Your task to perform on an android device: uninstall "Google Translate" Image 0: 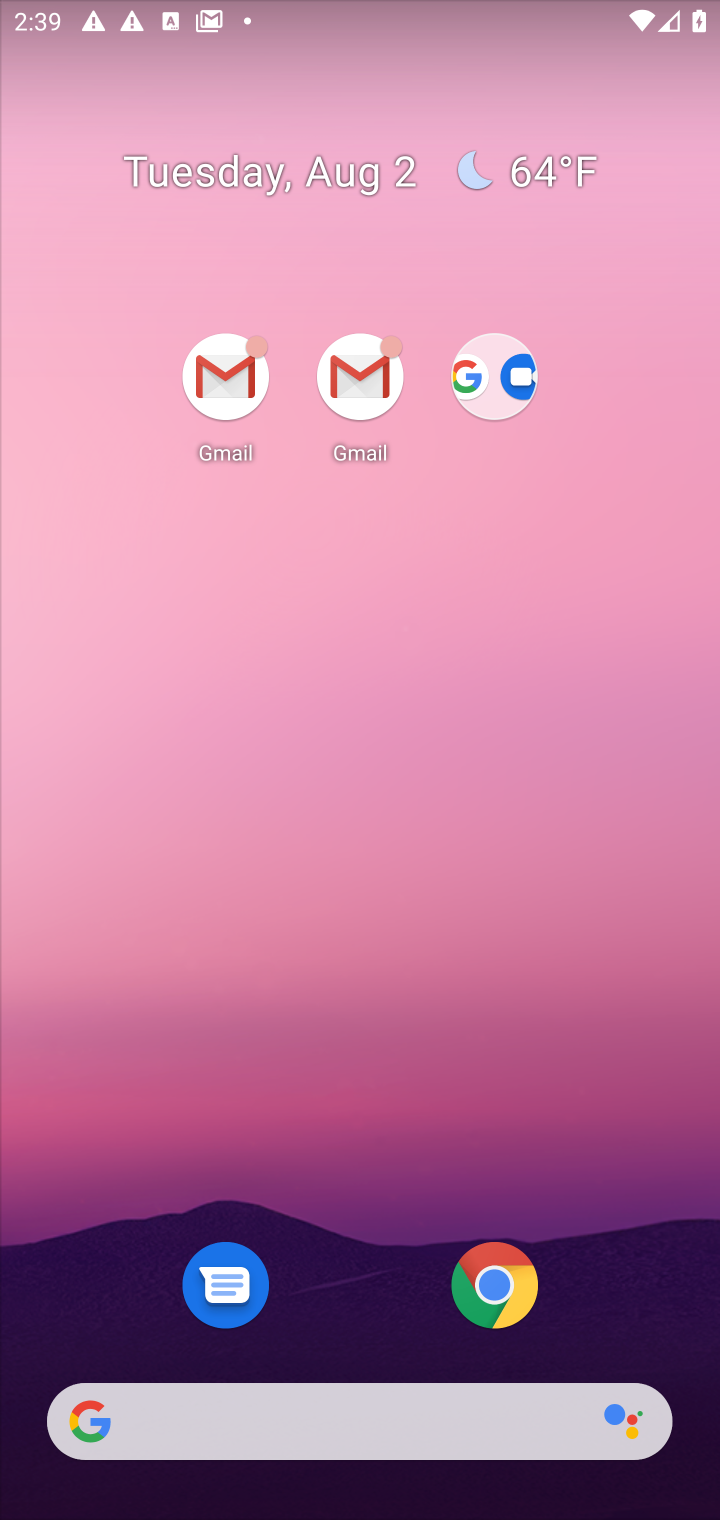
Step 0: drag from (377, 1181) to (393, 98)
Your task to perform on an android device: uninstall "Google Translate" Image 1: 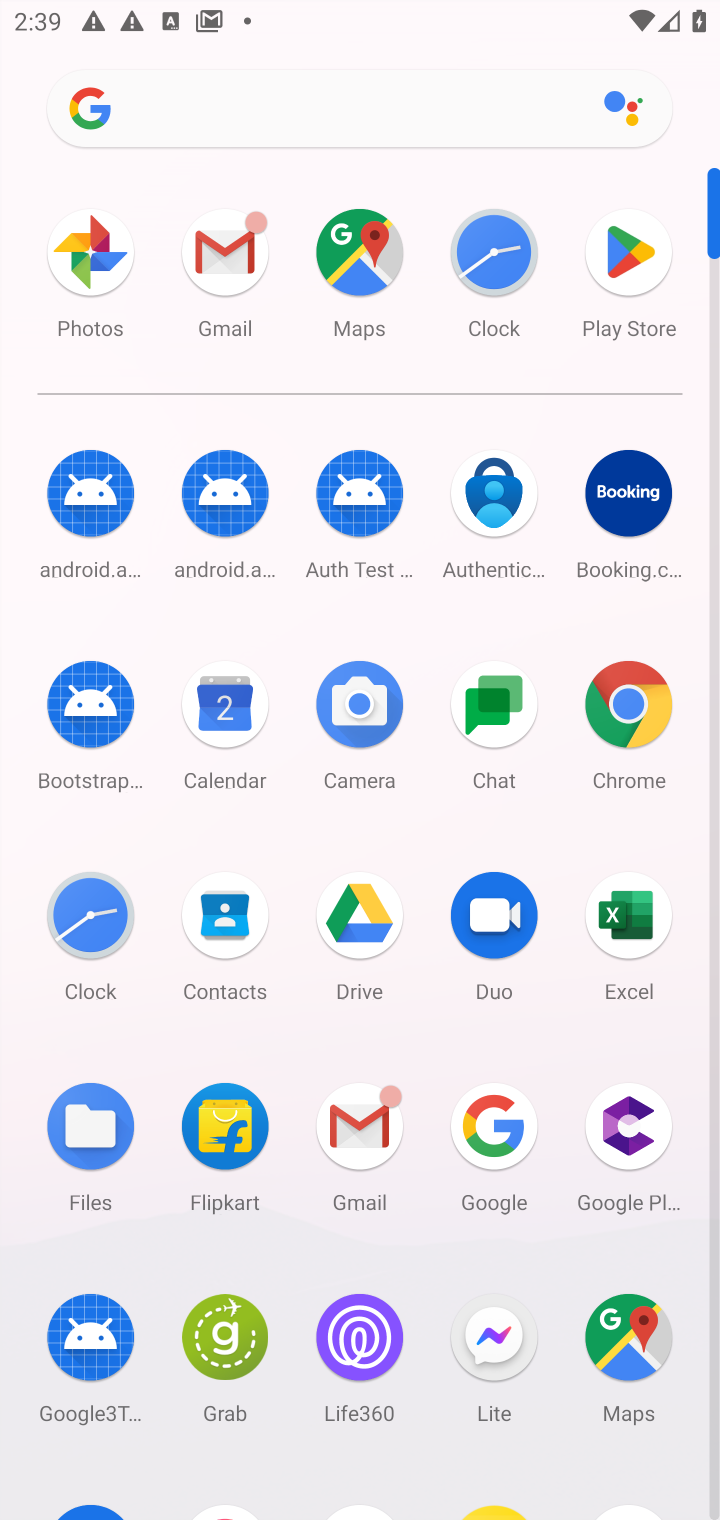
Step 1: drag from (413, 1230) to (405, 488)
Your task to perform on an android device: uninstall "Google Translate" Image 2: 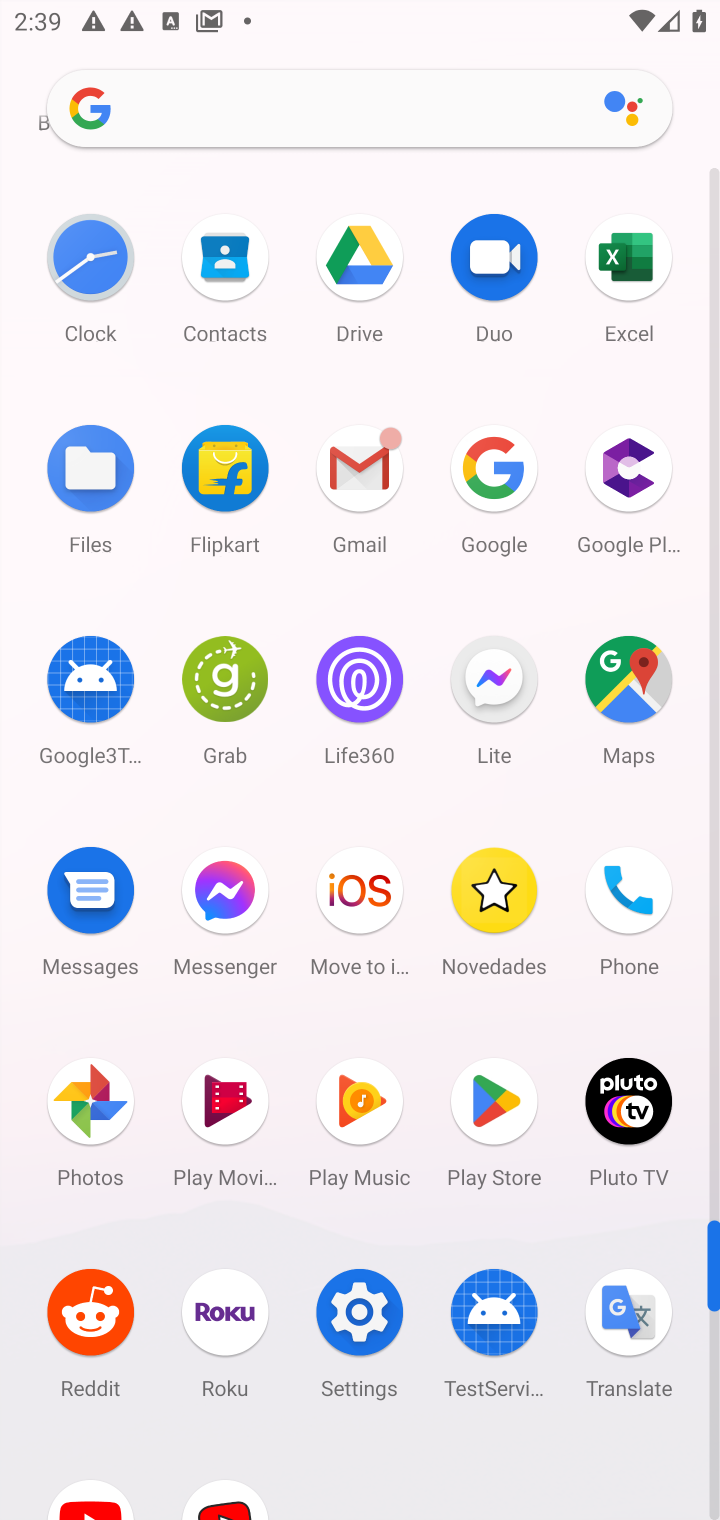
Step 2: click (503, 1132)
Your task to perform on an android device: uninstall "Google Translate" Image 3: 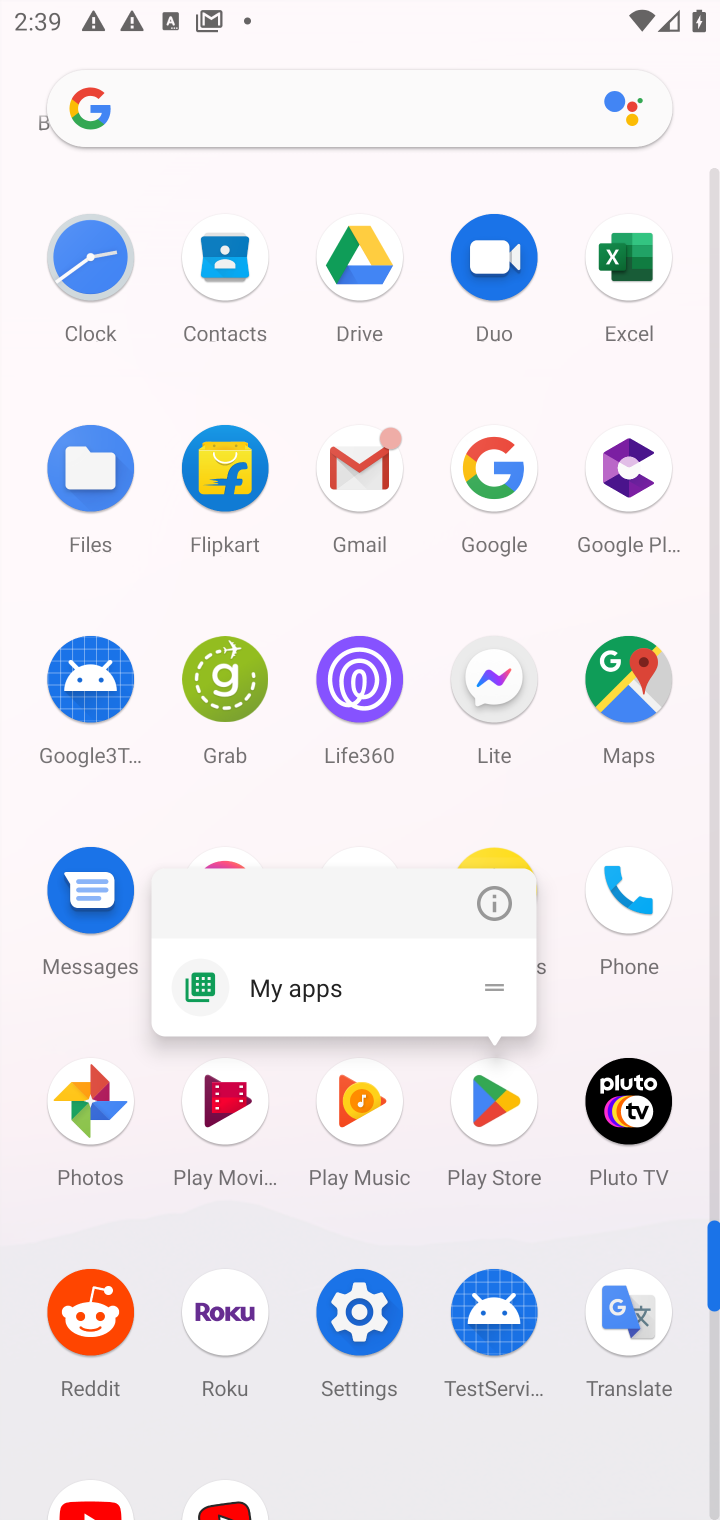
Step 3: click (503, 1117)
Your task to perform on an android device: uninstall "Google Translate" Image 4: 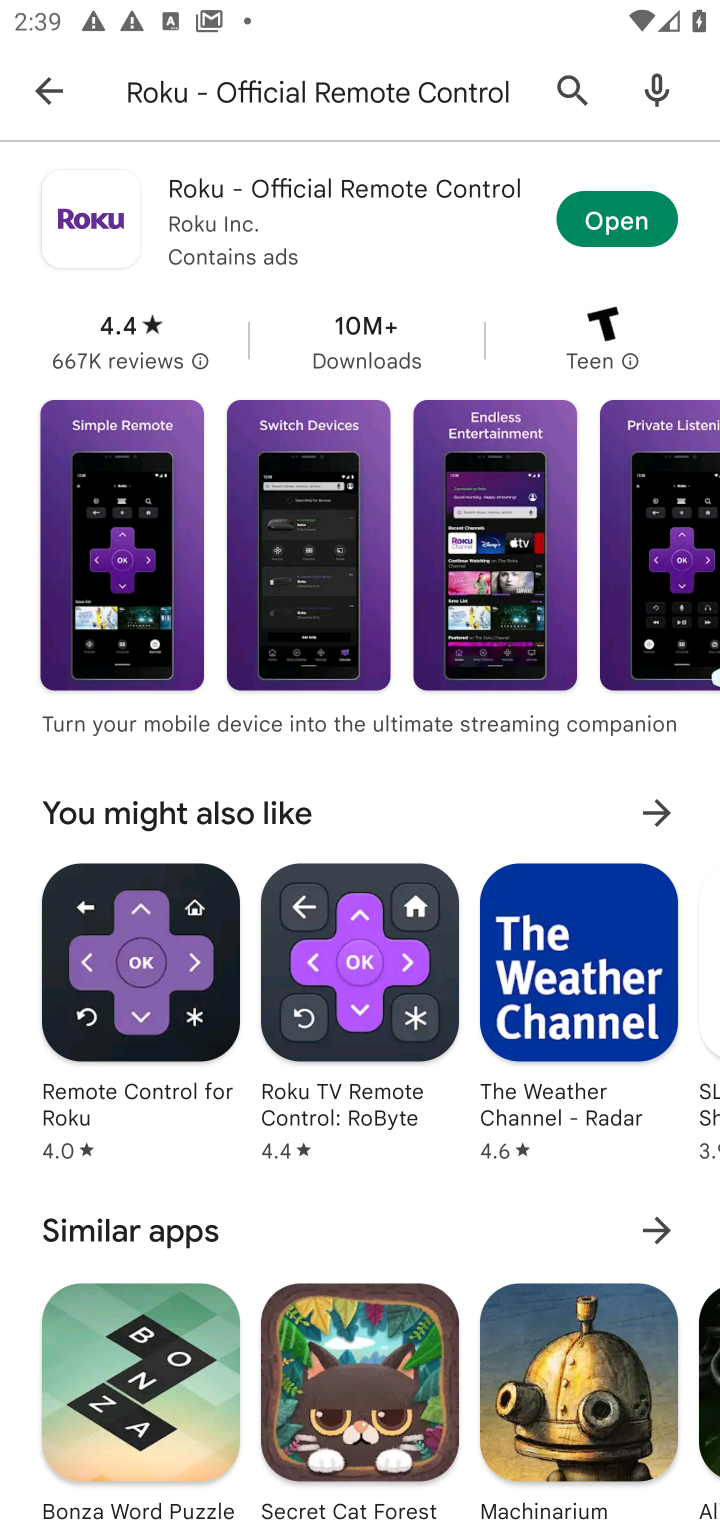
Step 4: click (450, 103)
Your task to perform on an android device: uninstall "Google Translate" Image 5: 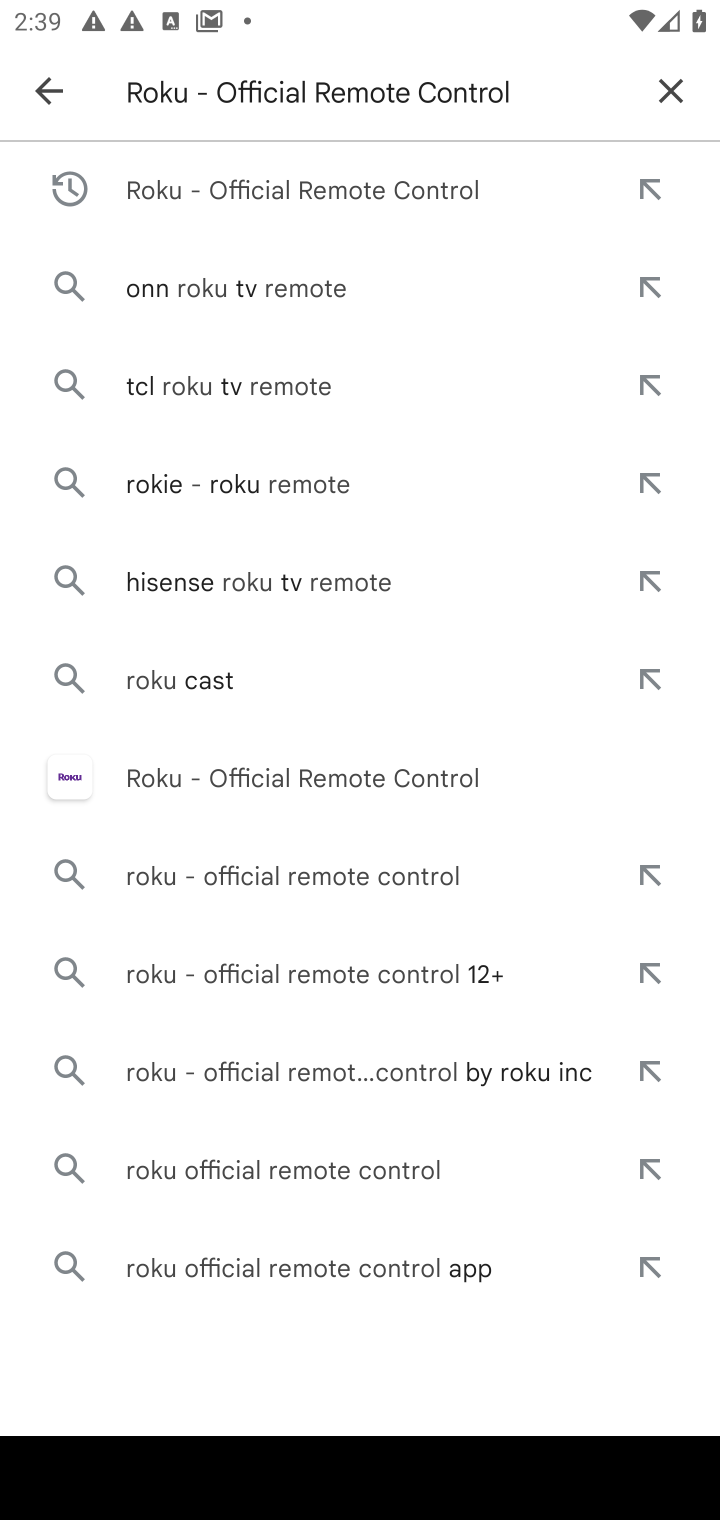
Step 5: click (651, 89)
Your task to perform on an android device: uninstall "Google Translate" Image 6: 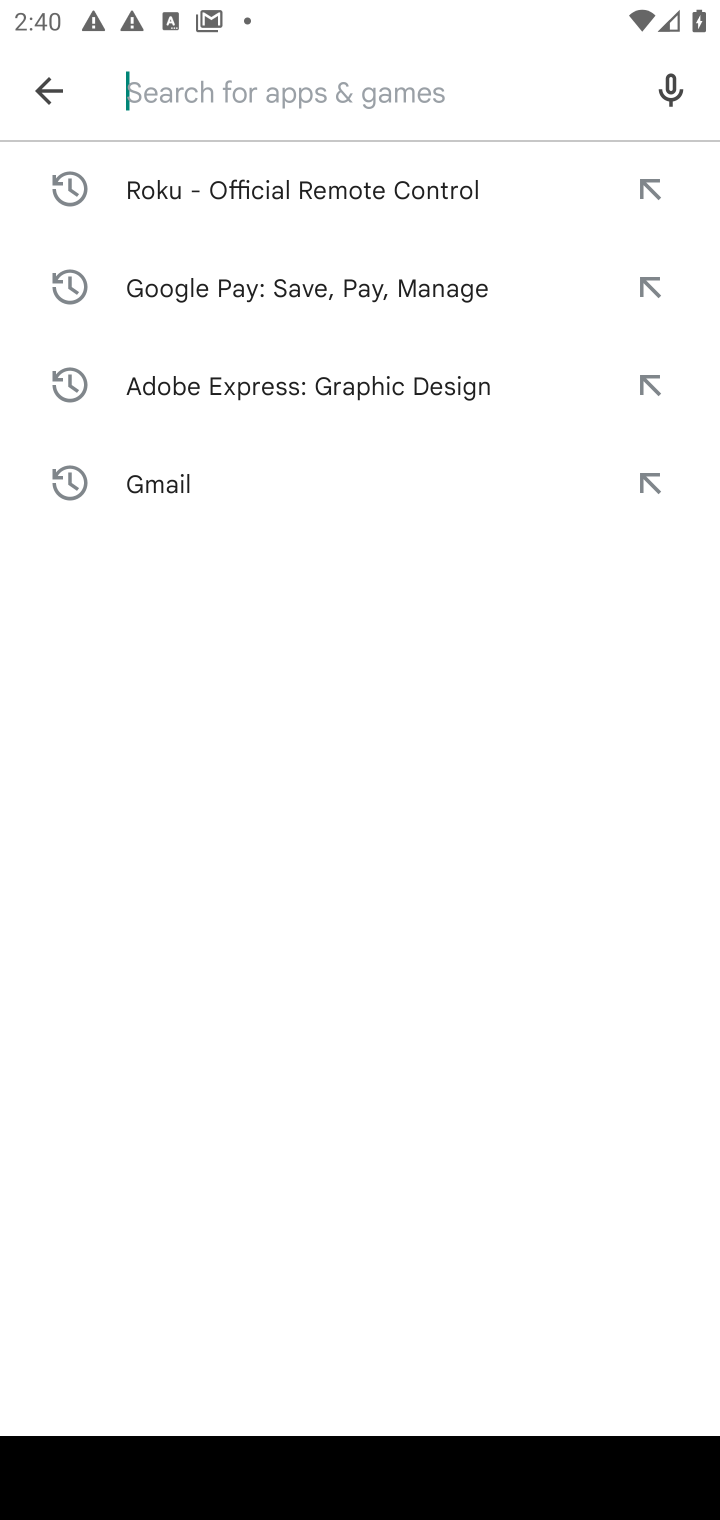
Step 6: type "Google Translate"
Your task to perform on an android device: uninstall "Google Translate" Image 7: 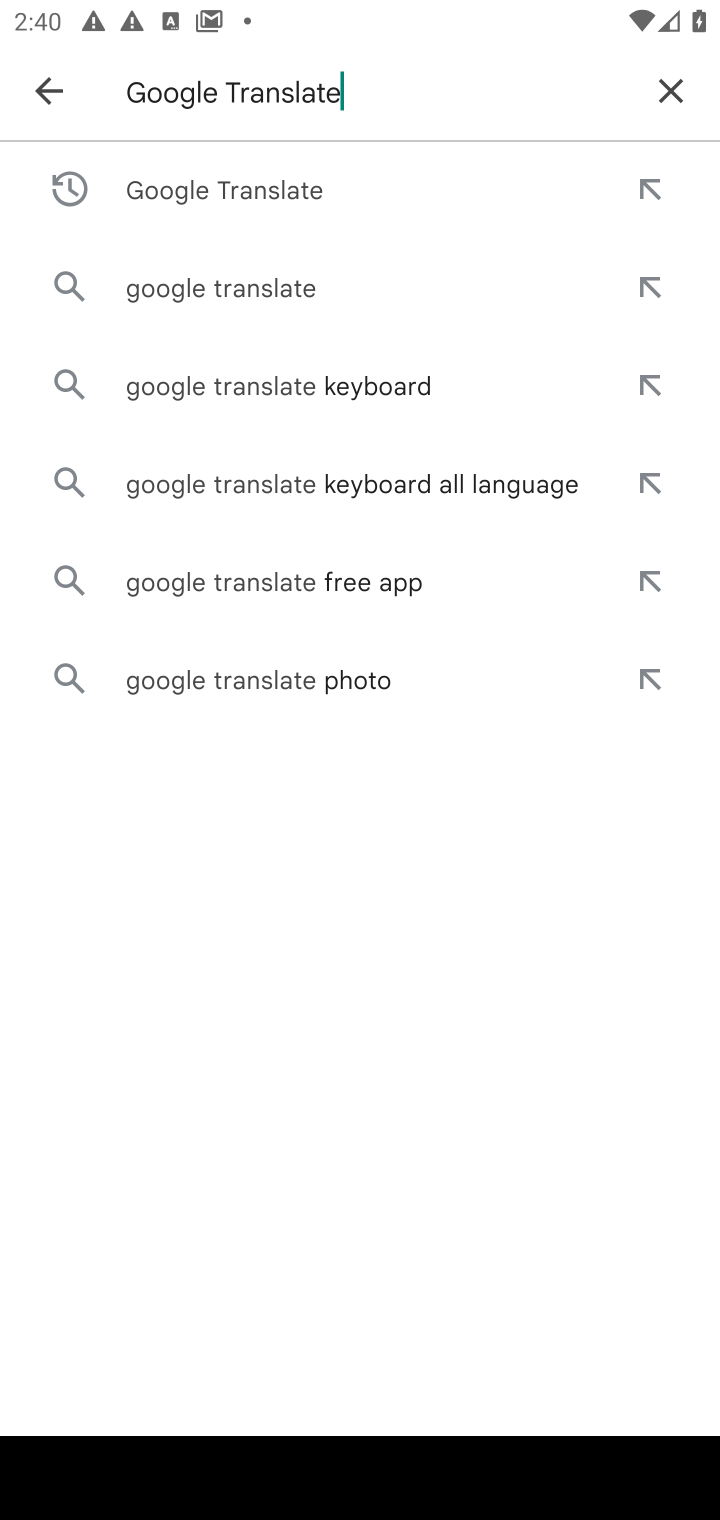
Step 7: press enter
Your task to perform on an android device: uninstall "Google Translate" Image 8: 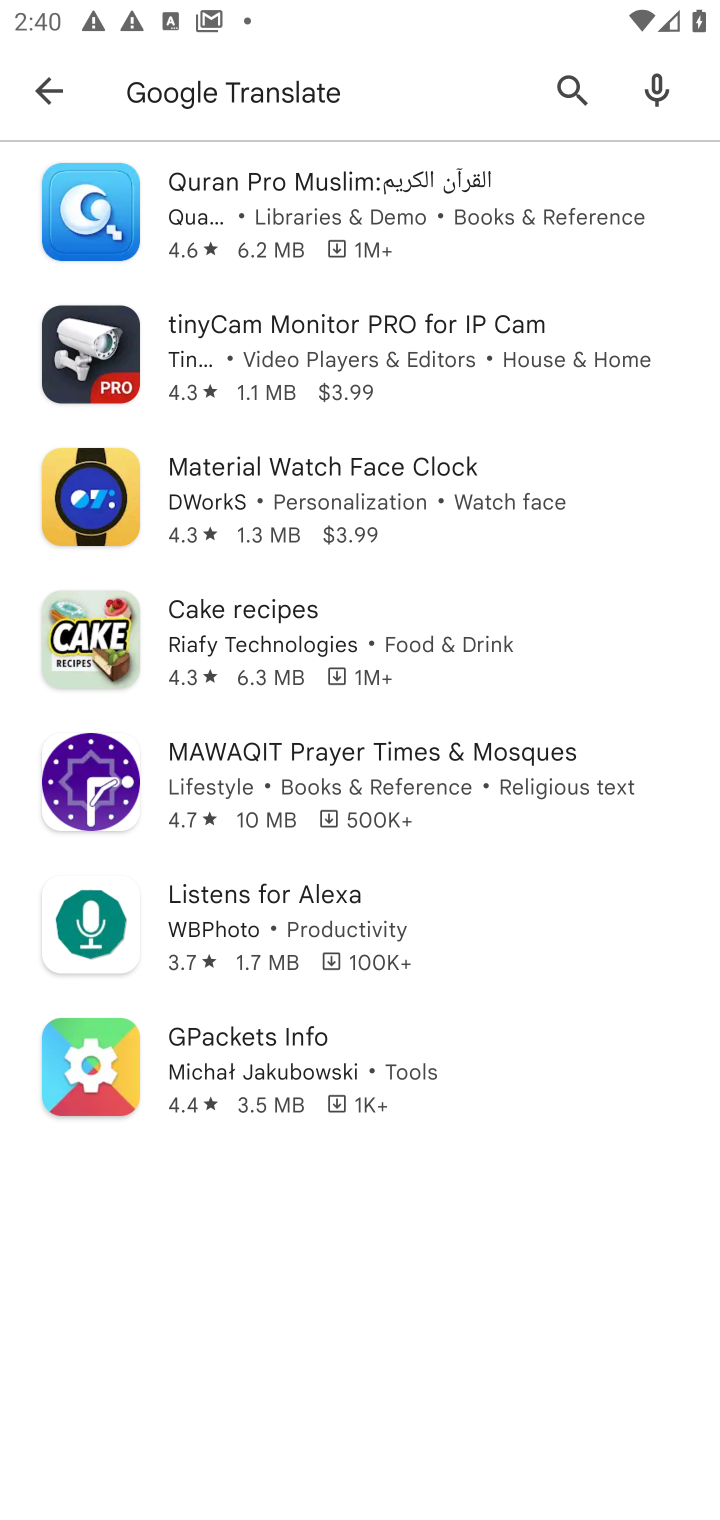
Step 8: task complete